Your task to perform on an android device: change the clock display to digital Image 0: 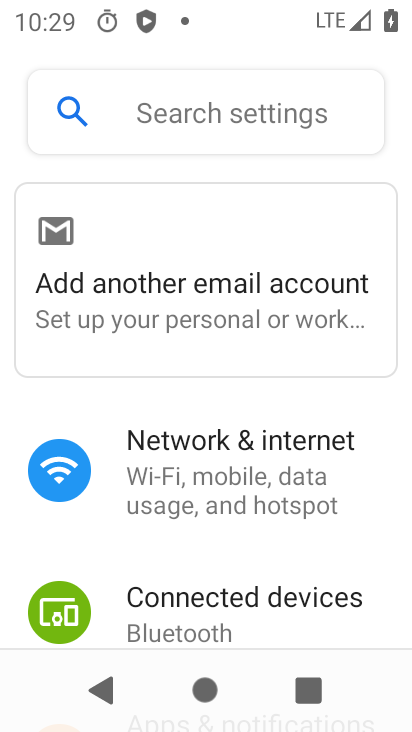
Step 0: press home button
Your task to perform on an android device: change the clock display to digital Image 1: 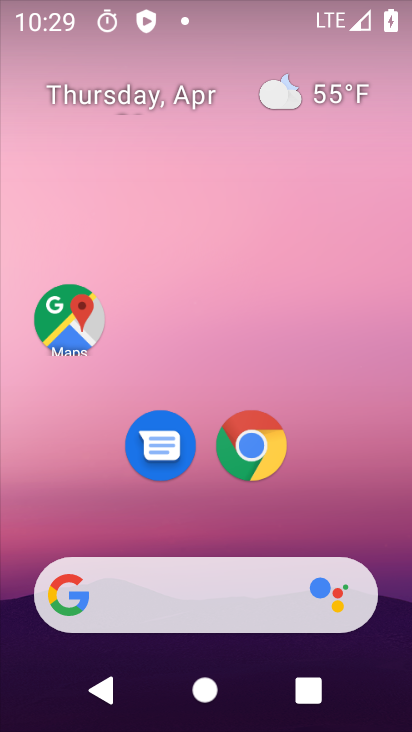
Step 1: drag from (371, 533) to (355, 19)
Your task to perform on an android device: change the clock display to digital Image 2: 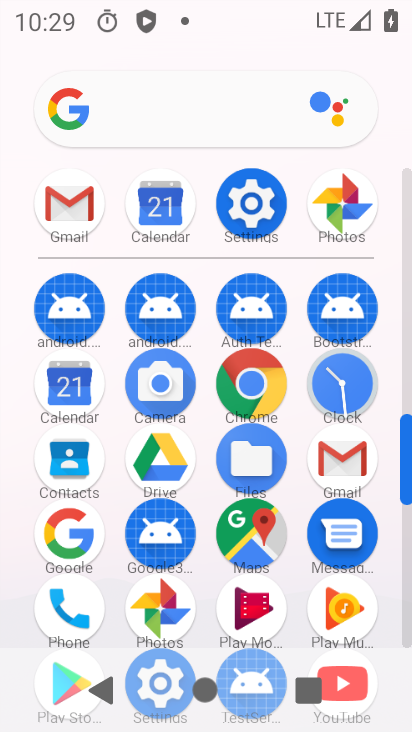
Step 2: click (334, 379)
Your task to perform on an android device: change the clock display to digital Image 3: 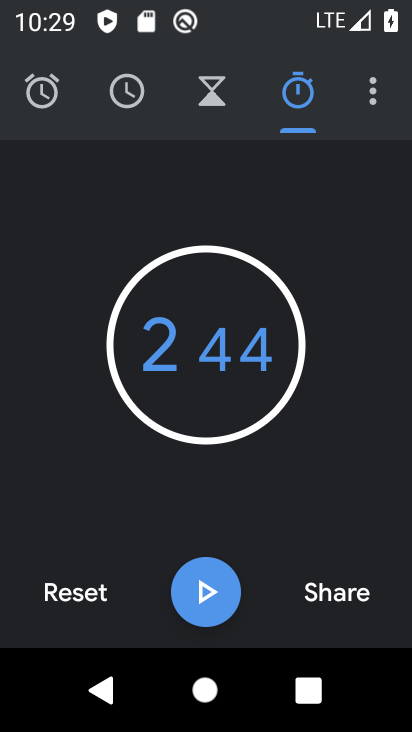
Step 3: click (373, 95)
Your task to perform on an android device: change the clock display to digital Image 4: 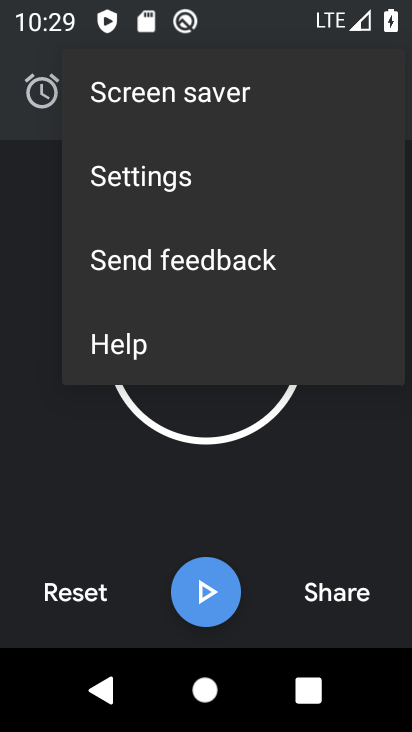
Step 4: click (147, 178)
Your task to perform on an android device: change the clock display to digital Image 5: 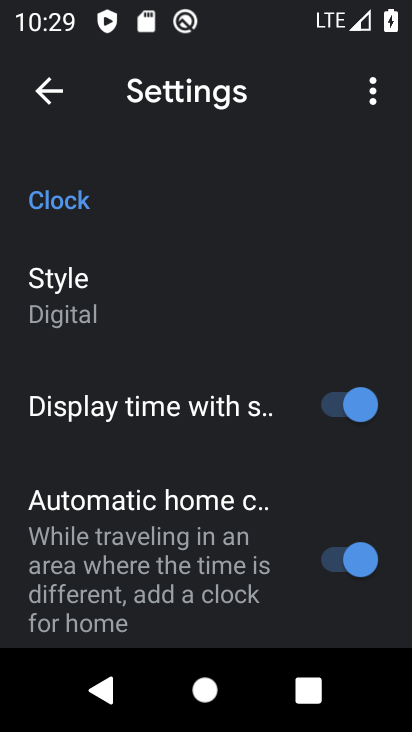
Step 5: task complete